Your task to perform on an android device: Open calendar and show me the second week of next month Image 0: 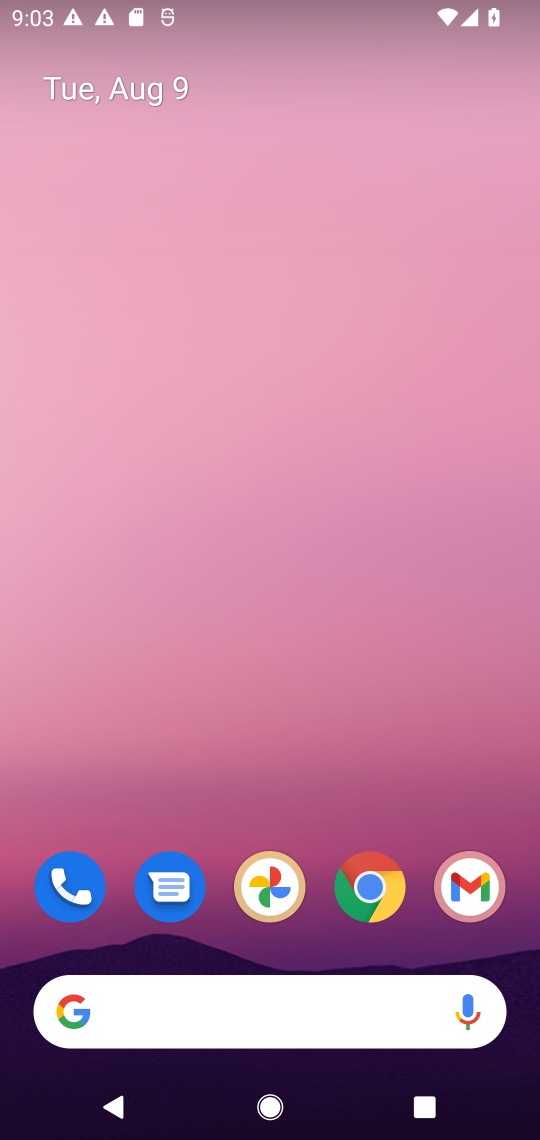
Step 0: drag from (245, 758) to (233, 157)
Your task to perform on an android device: Open calendar and show me the second week of next month Image 1: 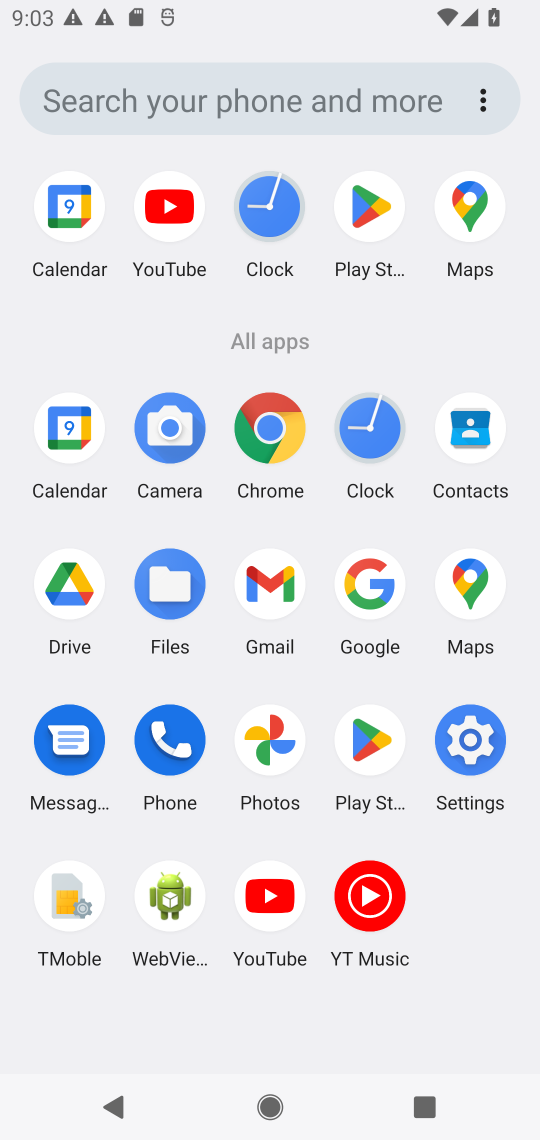
Step 1: click (46, 425)
Your task to perform on an android device: Open calendar and show me the second week of next month Image 2: 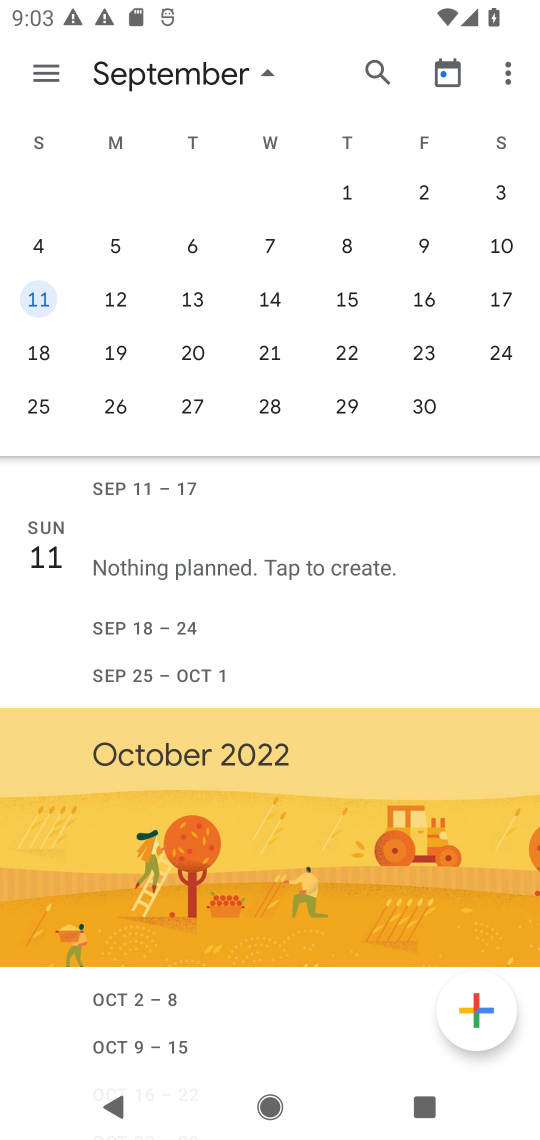
Step 2: click (34, 238)
Your task to perform on an android device: Open calendar and show me the second week of next month Image 3: 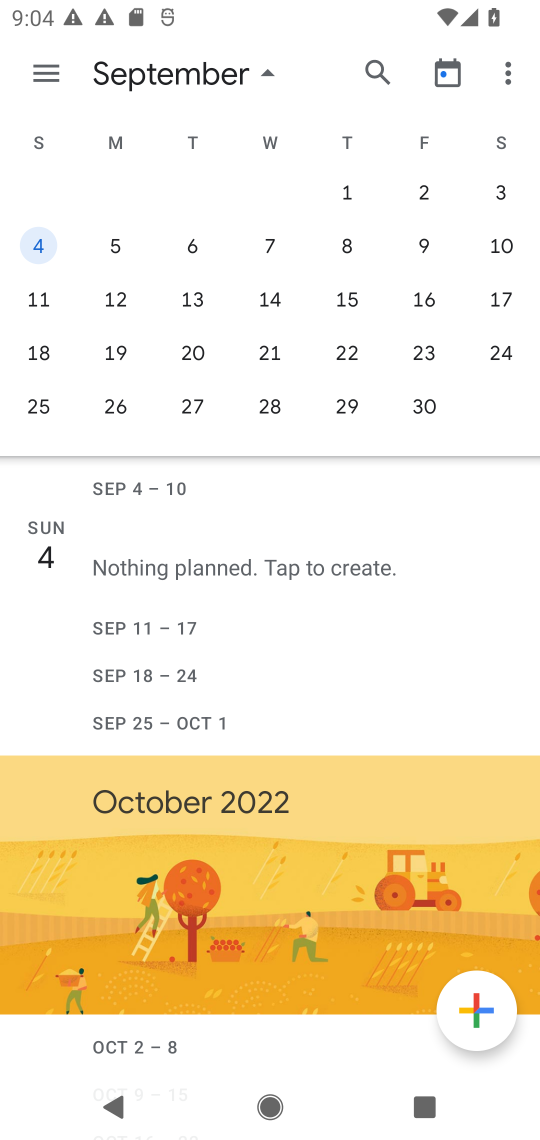
Step 3: task complete